Your task to perform on an android device: Is it going to rain today? Image 0: 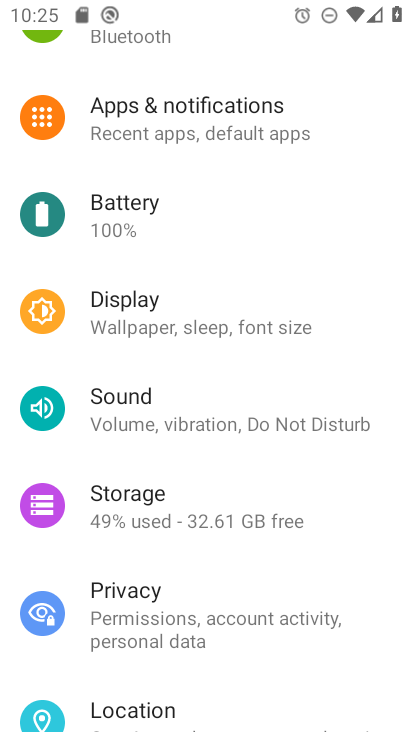
Step 0: press home button
Your task to perform on an android device: Is it going to rain today? Image 1: 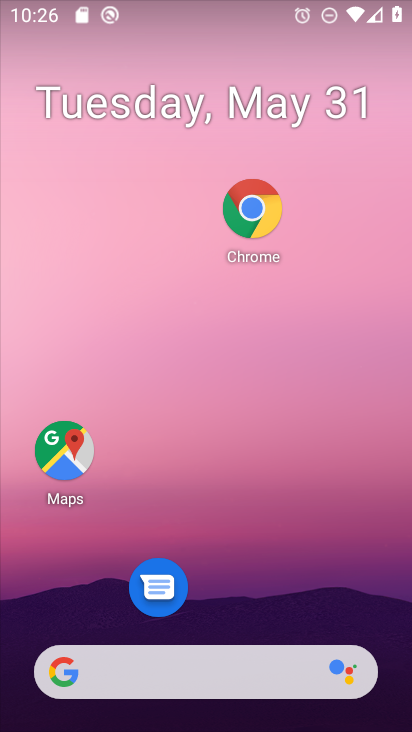
Step 1: drag from (24, 293) to (399, 180)
Your task to perform on an android device: Is it going to rain today? Image 2: 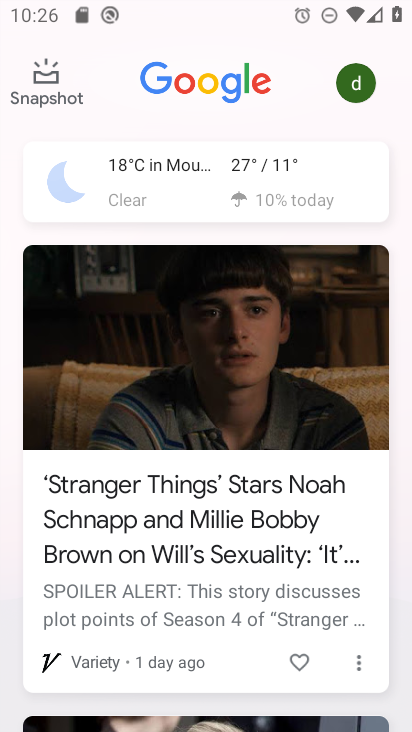
Step 2: click (146, 164)
Your task to perform on an android device: Is it going to rain today? Image 3: 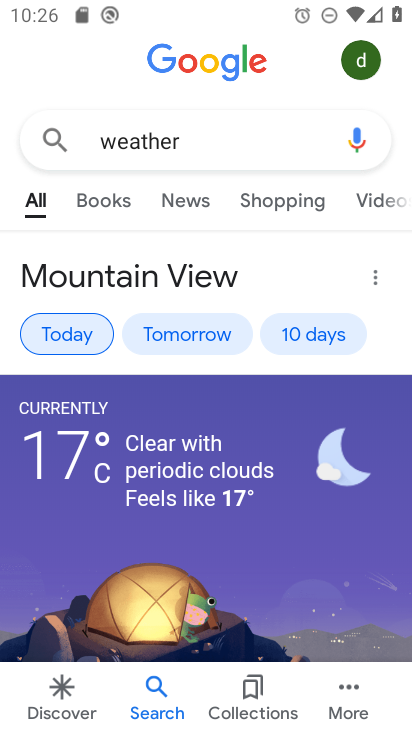
Step 3: click (71, 328)
Your task to perform on an android device: Is it going to rain today? Image 4: 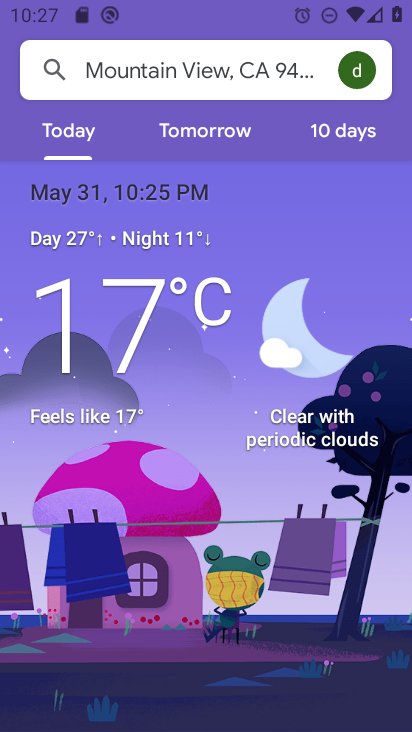
Step 4: drag from (212, 603) to (217, 245)
Your task to perform on an android device: Is it going to rain today? Image 5: 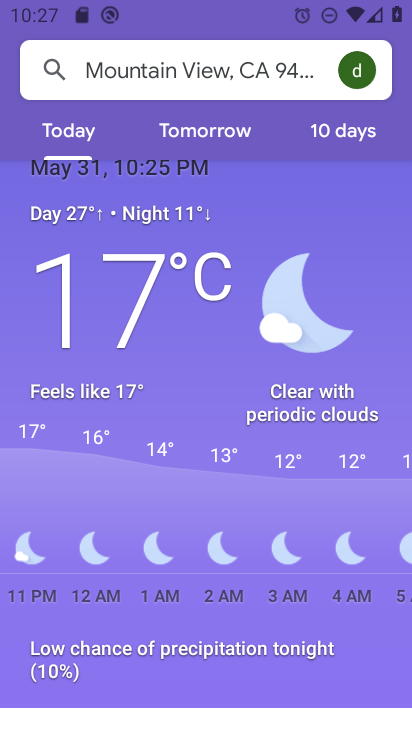
Step 5: drag from (348, 545) to (54, 560)
Your task to perform on an android device: Is it going to rain today? Image 6: 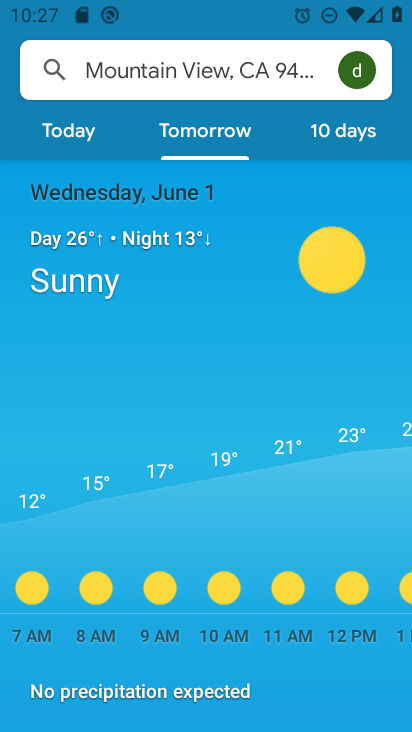
Step 6: click (66, 137)
Your task to perform on an android device: Is it going to rain today? Image 7: 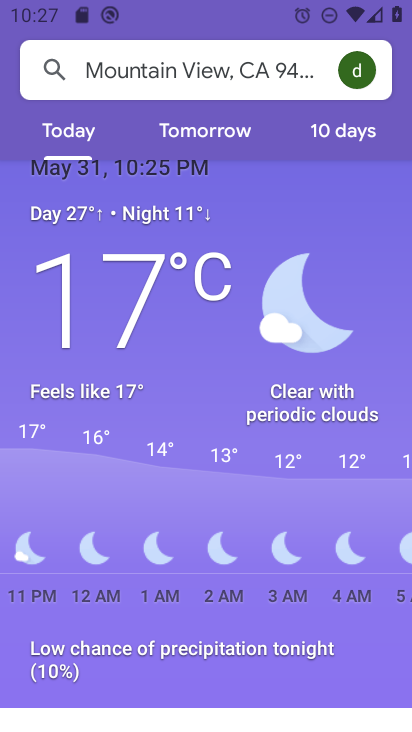
Step 7: task complete